Your task to perform on an android device: See recent photos Image 0: 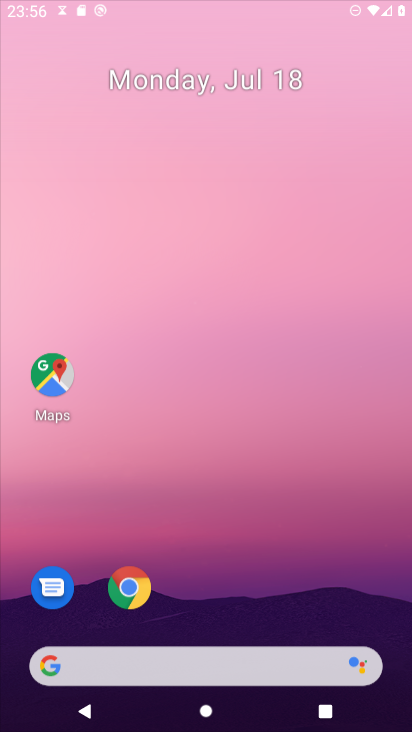
Step 0: press home button
Your task to perform on an android device: See recent photos Image 1: 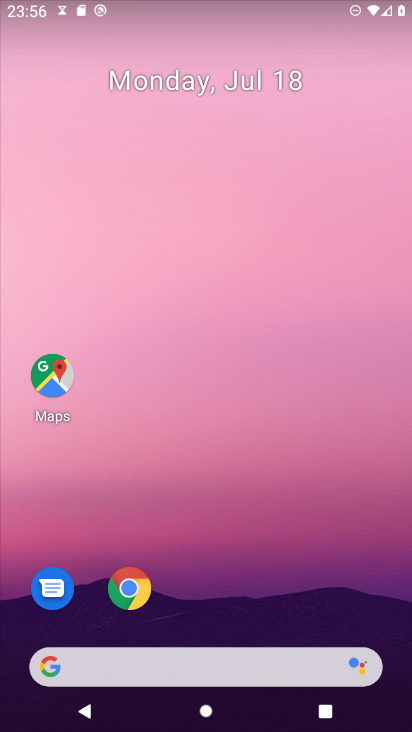
Step 1: drag from (273, 542) to (257, 108)
Your task to perform on an android device: See recent photos Image 2: 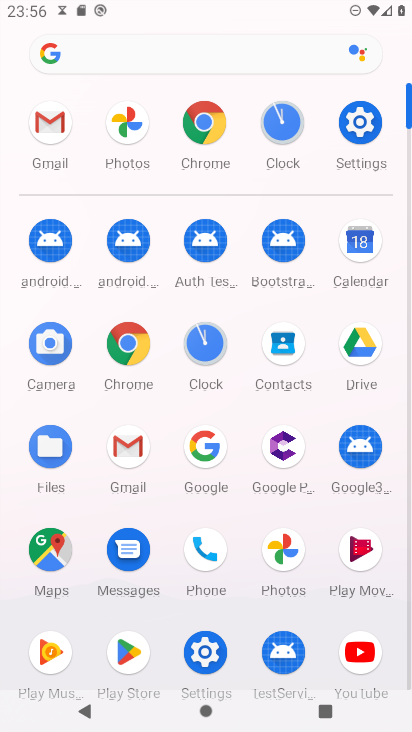
Step 2: click (280, 553)
Your task to perform on an android device: See recent photos Image 3: 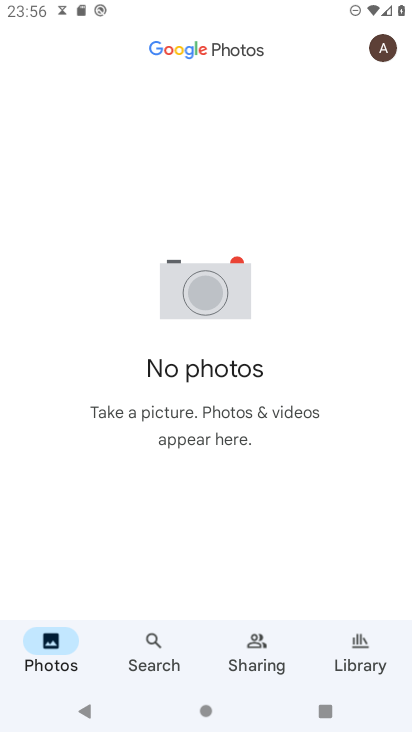
Step 3: task complete